Your task to perform on an android device: open app "Airtel Thanks" Image 0: 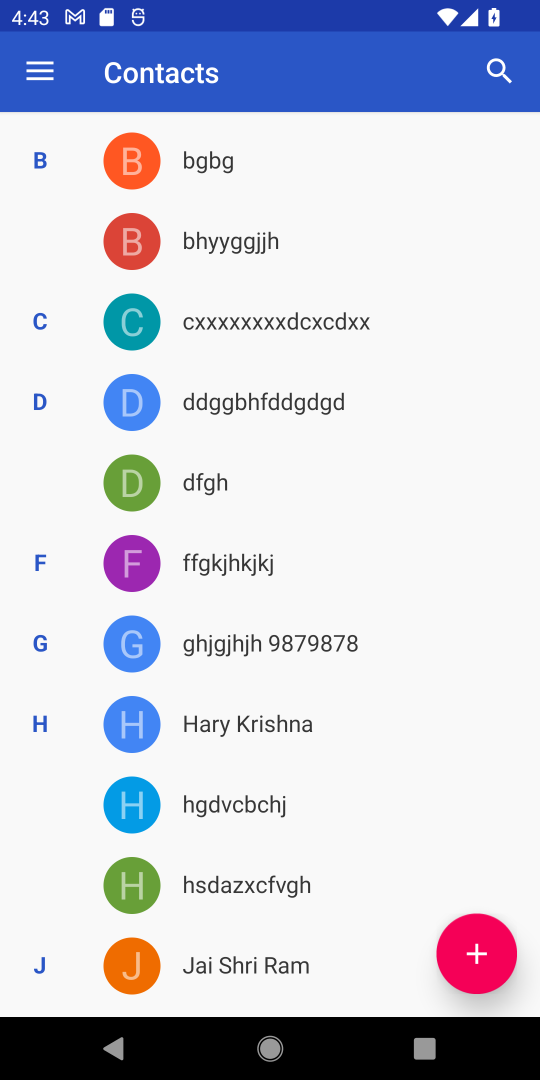
Step 0: press back button
Your task to perform on an android device: open app "Airtel Thanks" Image 1: 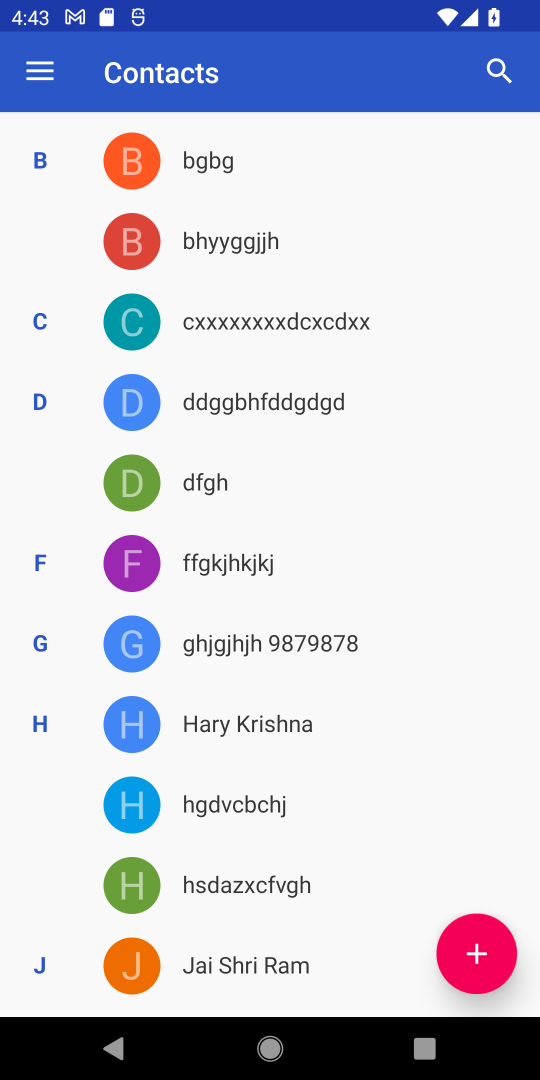
Step 1: press back button
Your task to perform on an android device: open app "Airtel Thanks" Image 2: 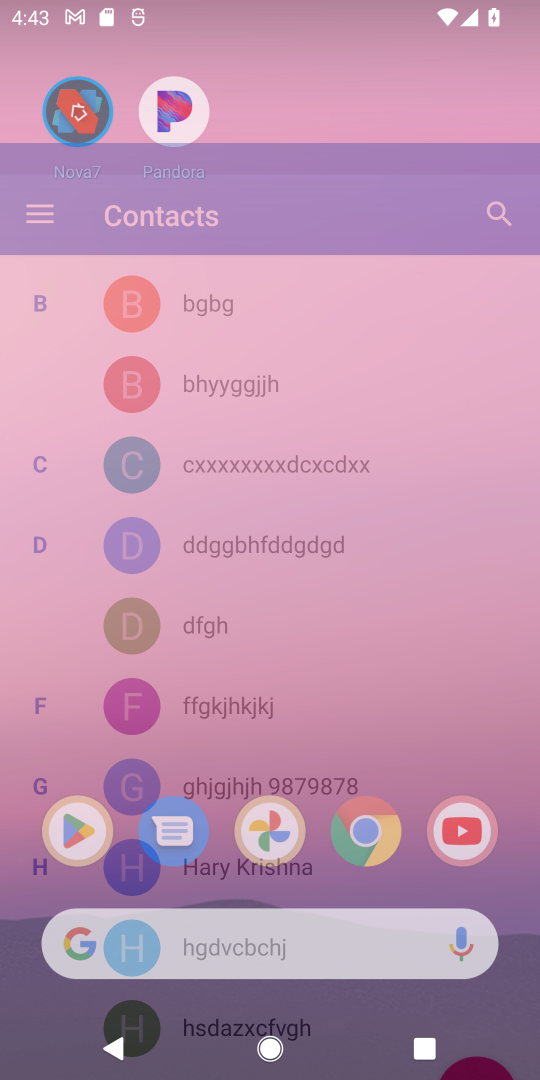
Step 2: press back button
Your task to perform on an android device: open app "Airtel Thanks" Image 3: 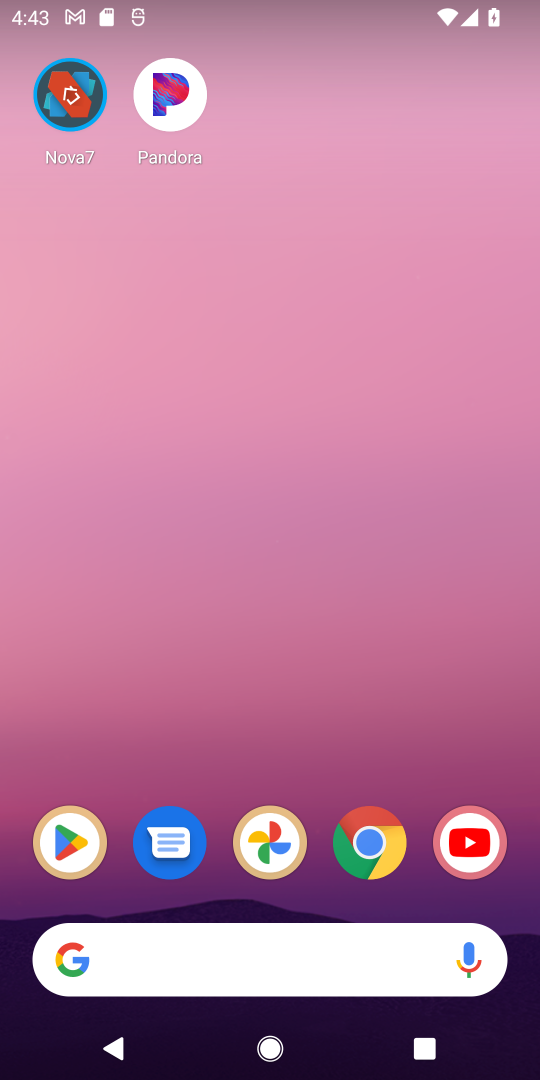
Step 3: drag from (308, 707) to (266, 251)
Your task to perform on an android device: open app "Airtel Thanks" Image 4: 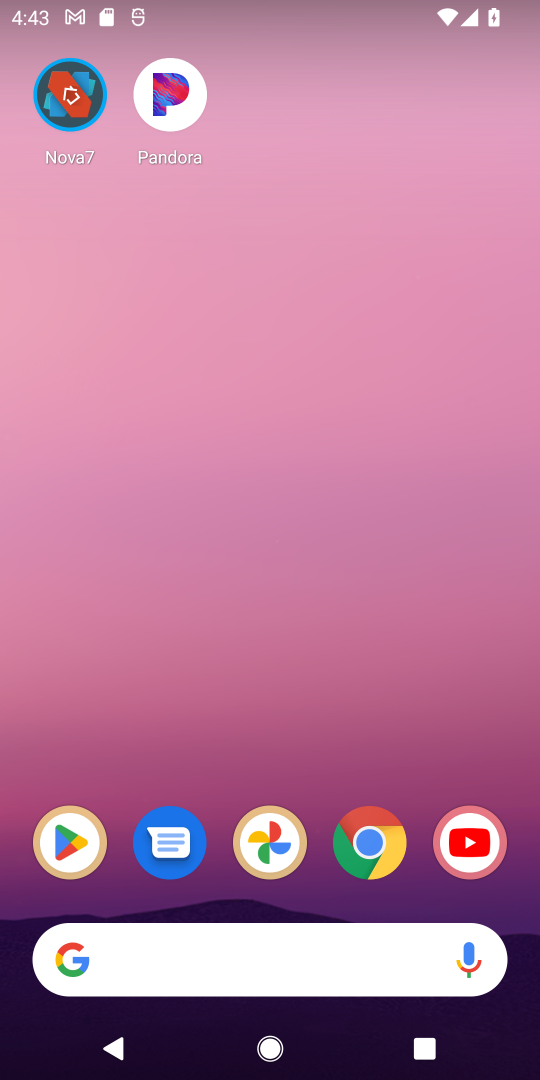
Step 4: drag from (353, 667) to (274, 366)
Your task to perform on an android device: open app "Airtel Thanks" Image 5: 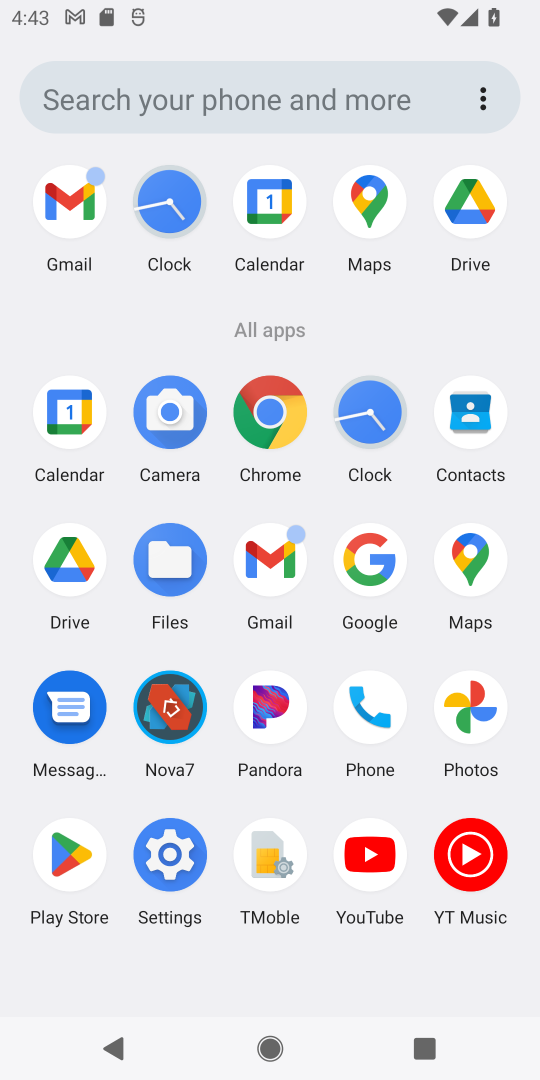
Step 5: click (72, 861)
Your task to perform on an android device: open app "Airtel Thanks" Image 6: 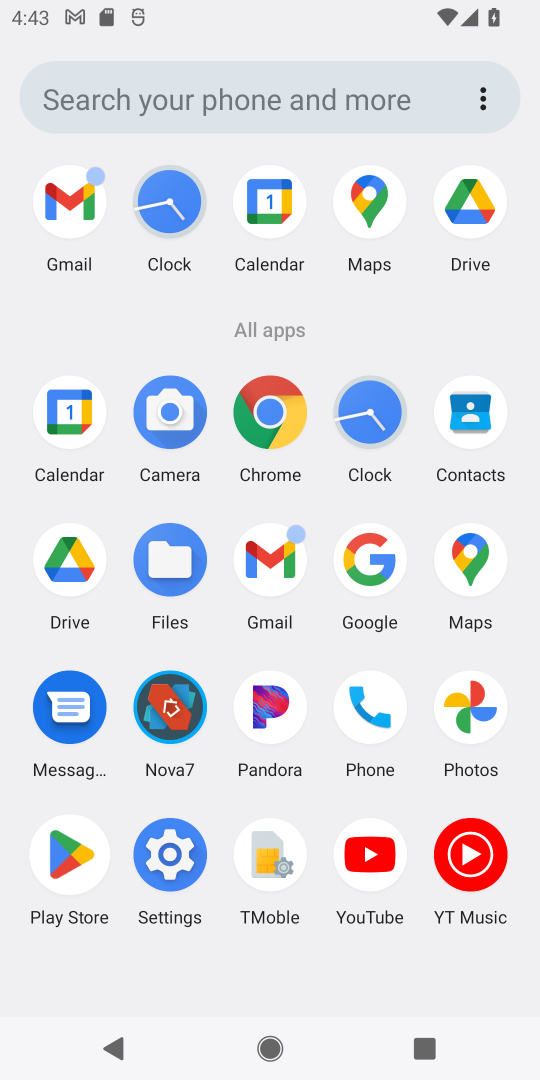
Step 6: click (72, 862)
Your task to perform on an android device: open app "Airtel Thanks" Image 7: 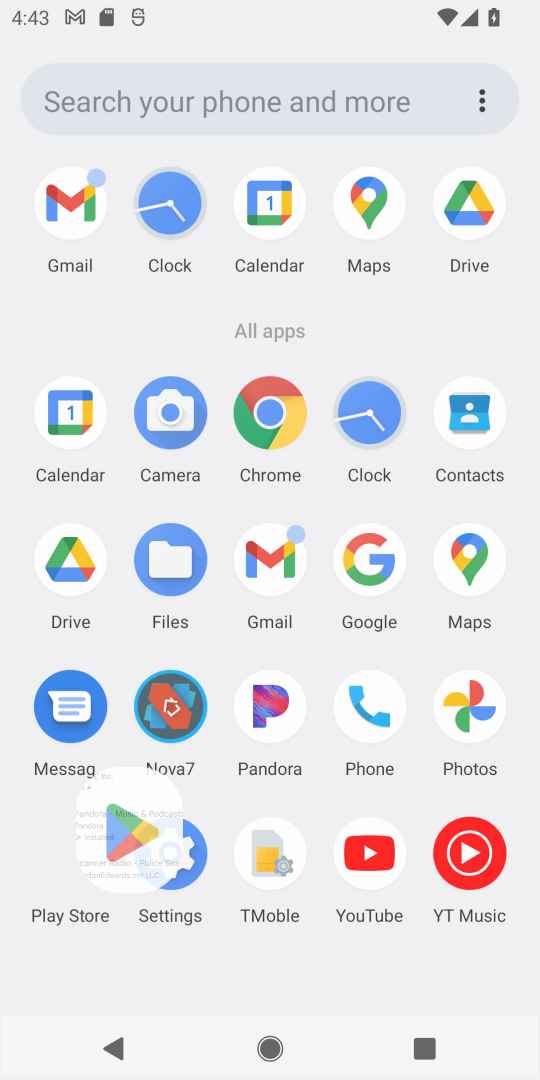
Step 7: click (74, 859)
Your task to perform on an android device: open app "Airtel Thanks" Image 8: 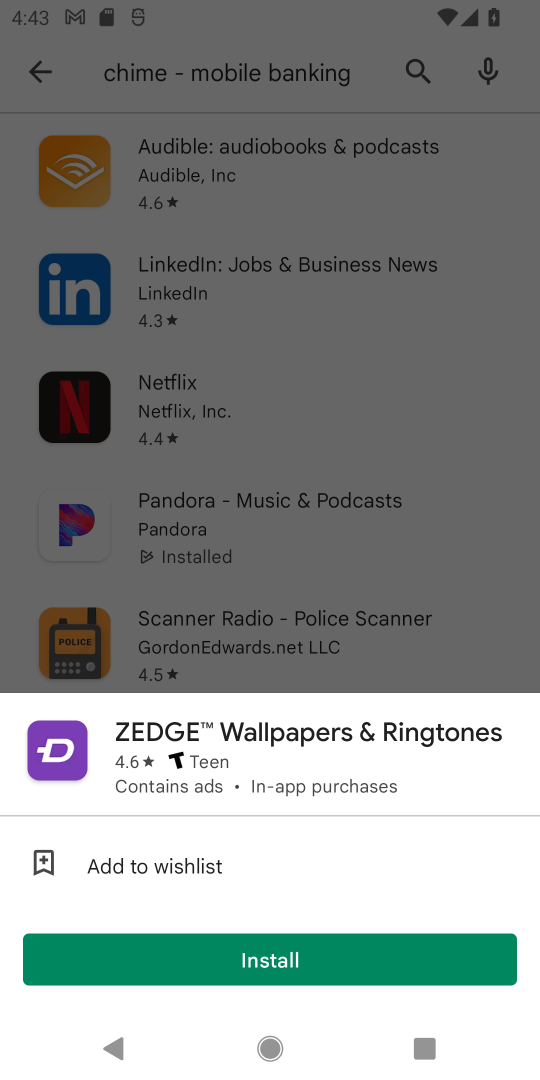
Step 8: click (435, 586)
Your task to perform on an android device: open app "Airtel Thanks" Image 9: 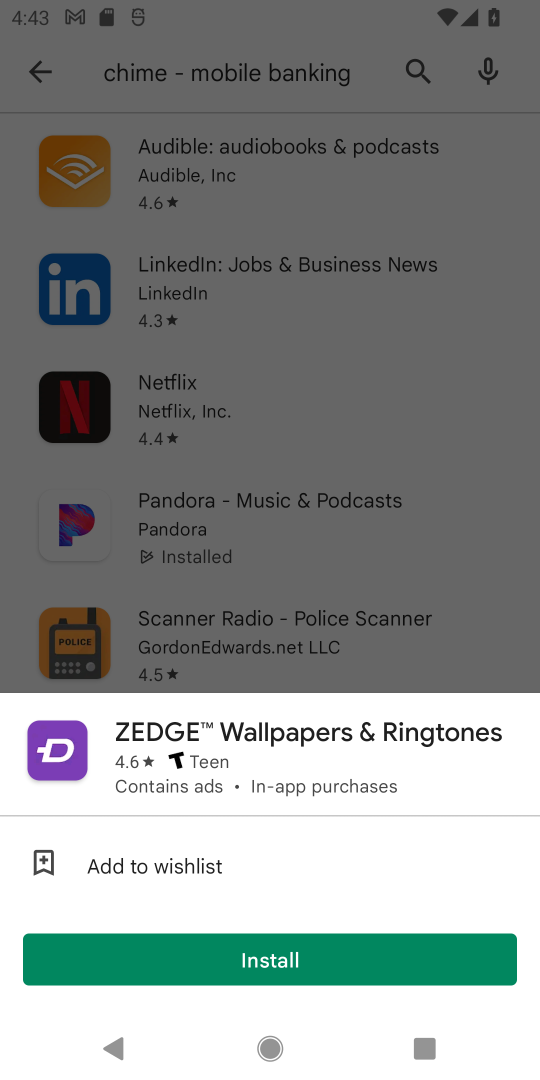
Step 9: click (442, 581)
Your task to perform on an android device: open app "Airtel Thanks" Image 10: 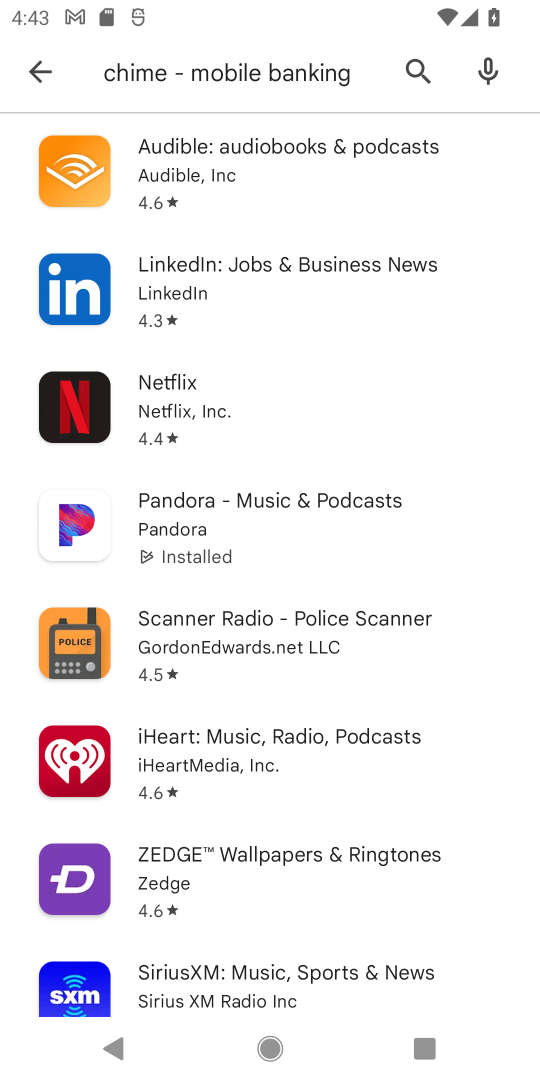
Step 10: click (445, 572)
Your task to perform on an android device: open app "Airtel Thanks" Image 11: 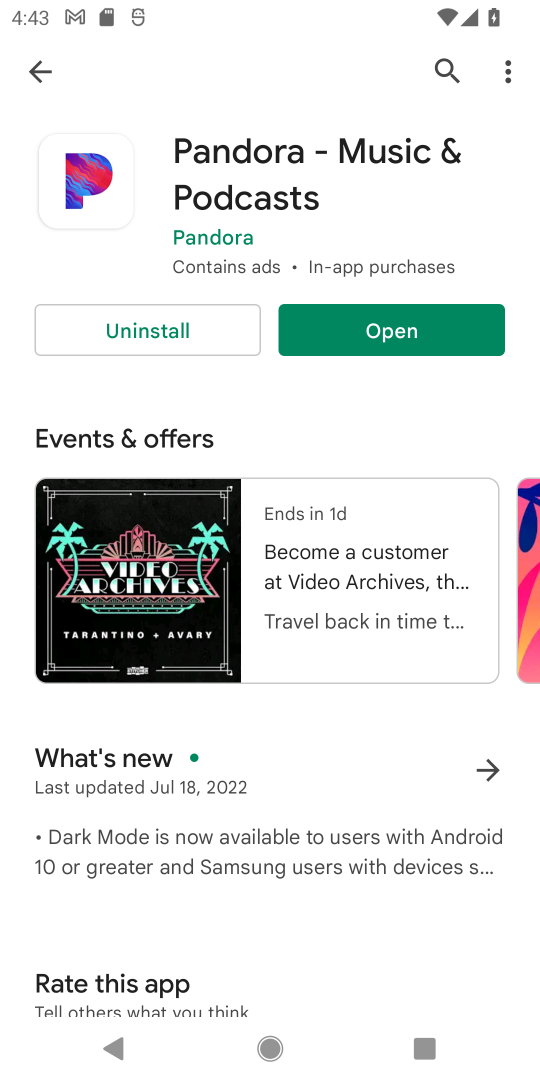
Step 11: click (28, 70)
Your task to perform on an android device: open app "Airtel Thanks" Image 12: 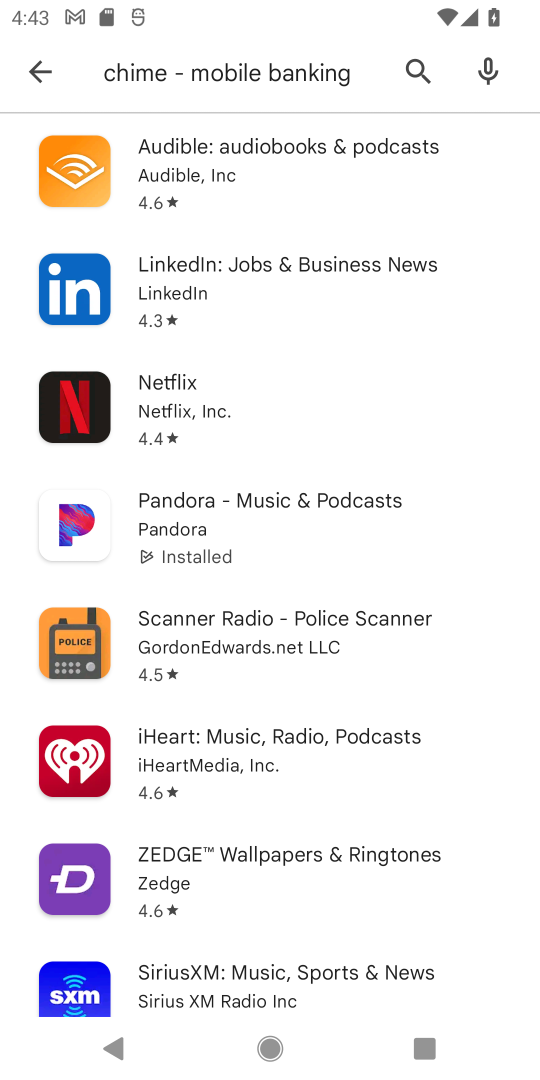
Step 12: click (48, 75)
Your task to perform on an android device: open app "Airtel Thanks" Image 13: 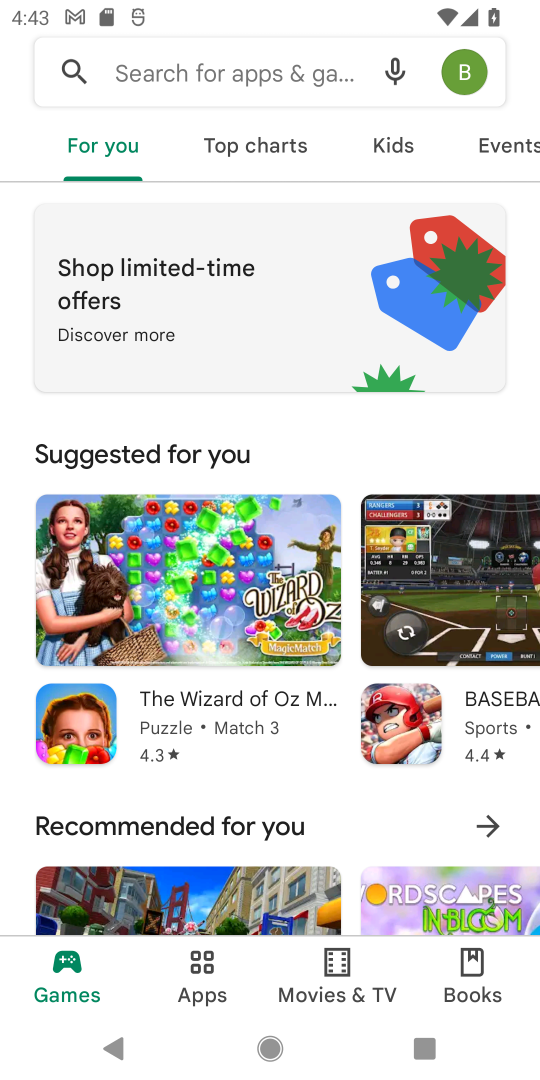
Step 13: click (147, 64)
Your task to perform on an android device: open app "Airtel Thanks" Image 14: 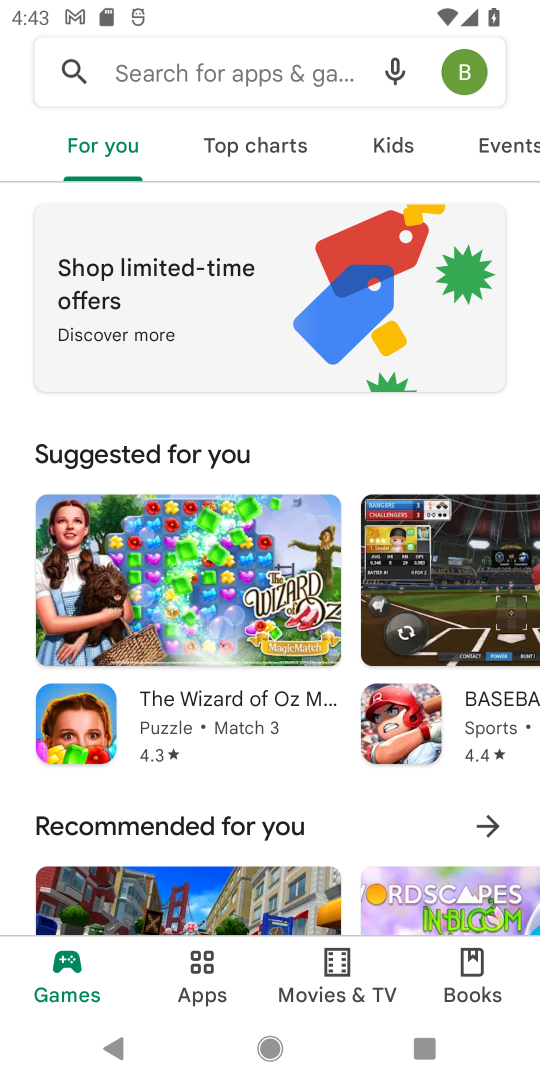
Step 14: click (146, 65)
Your task to perform on an android device: open app "Airtel Thanks" Image 15: 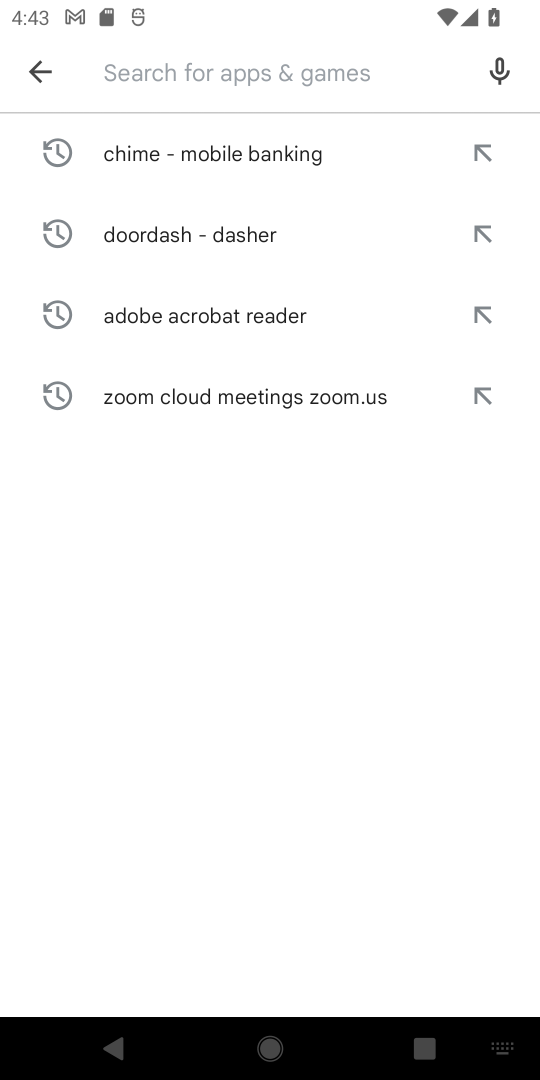
Step 15: type "Airtel Thanks"
Your task to perform on an android device: open app "Airtel Thanks" Image 16: 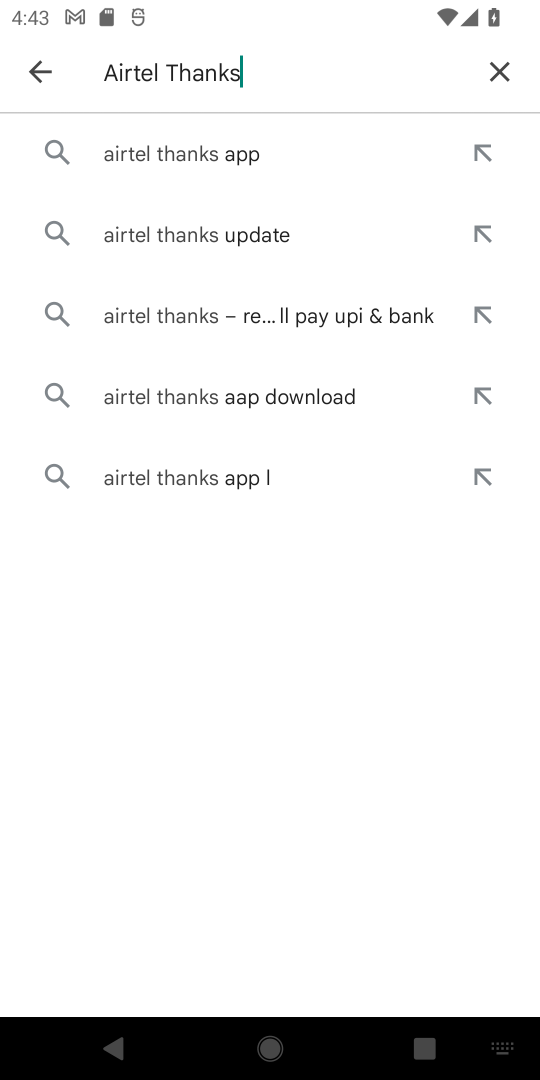
Step 16: click (144, 146)
Your task to perform on an android device: open app "Airtel Thanks" Image 17: 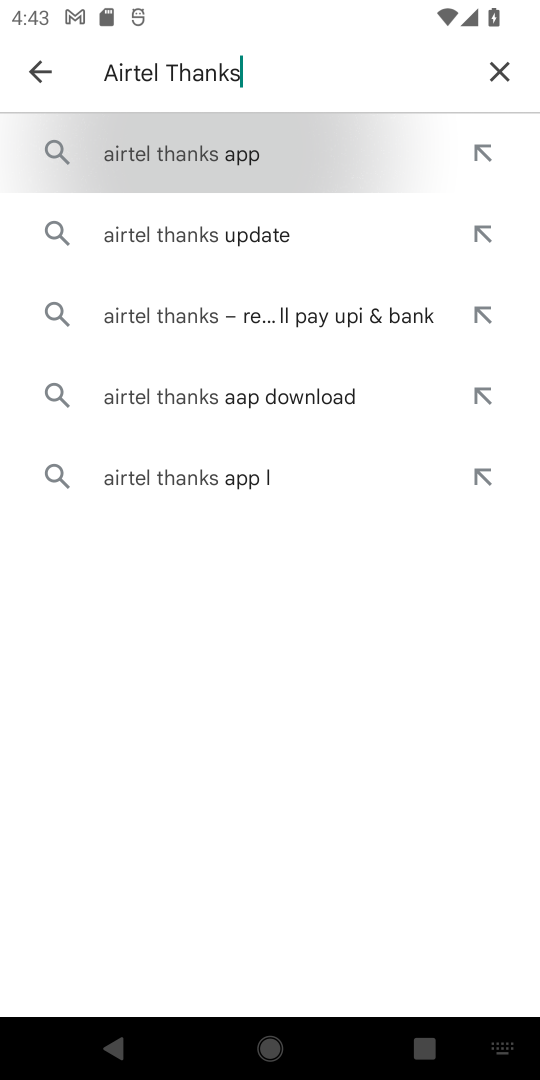
Step 17: click (148, 148)
Your task to perform on an android device: open app "Airtel Thanks" Image 18: 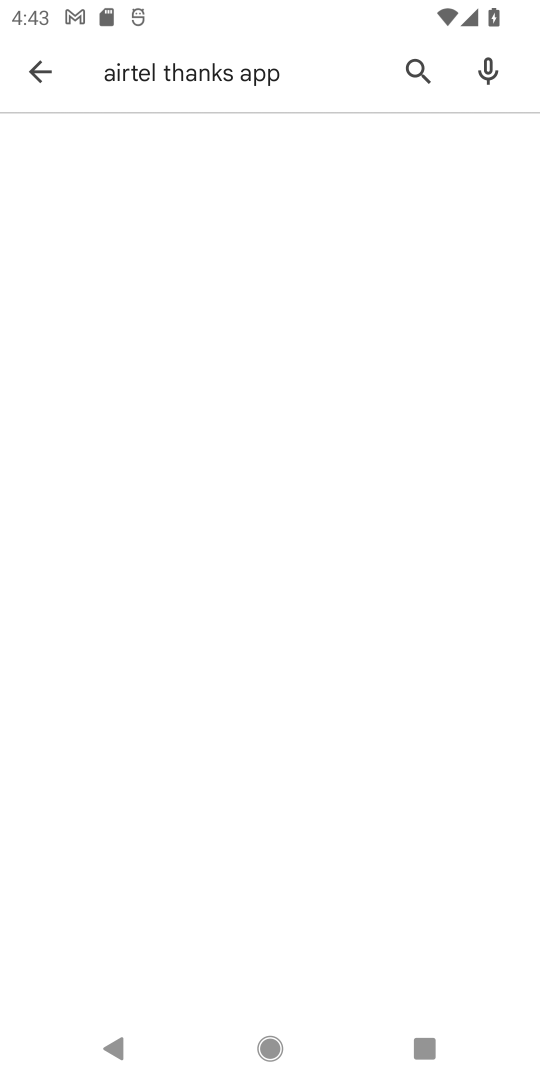
Step 18: click (159, 154)
Your task to perform on an android device: open app "Airtel Thanks" Image 19: 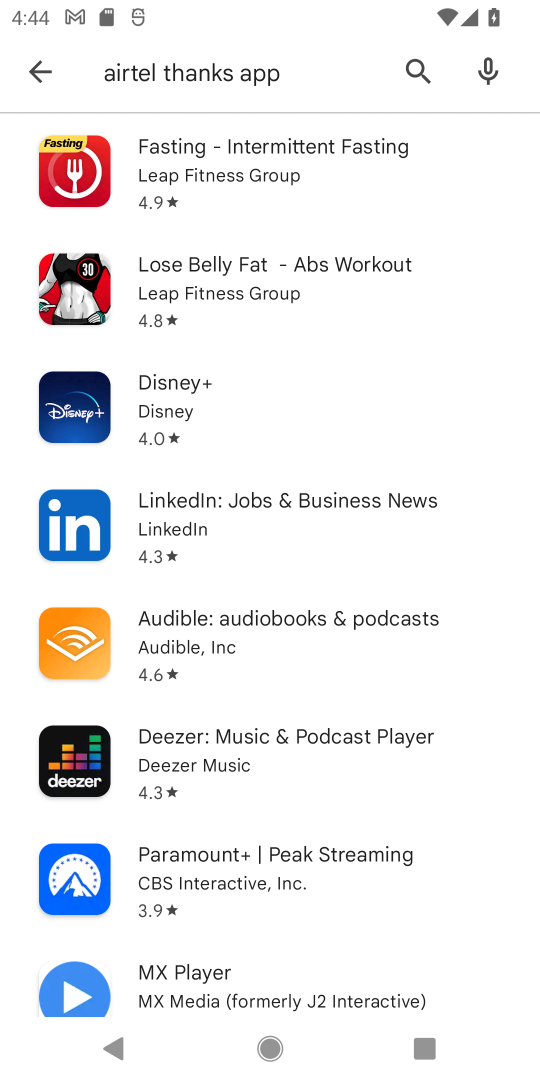
Step 19: drag from (150, 495) to (105, 215)
Your task to perform on an android device: open app "Airtel Thanks" Image 20: 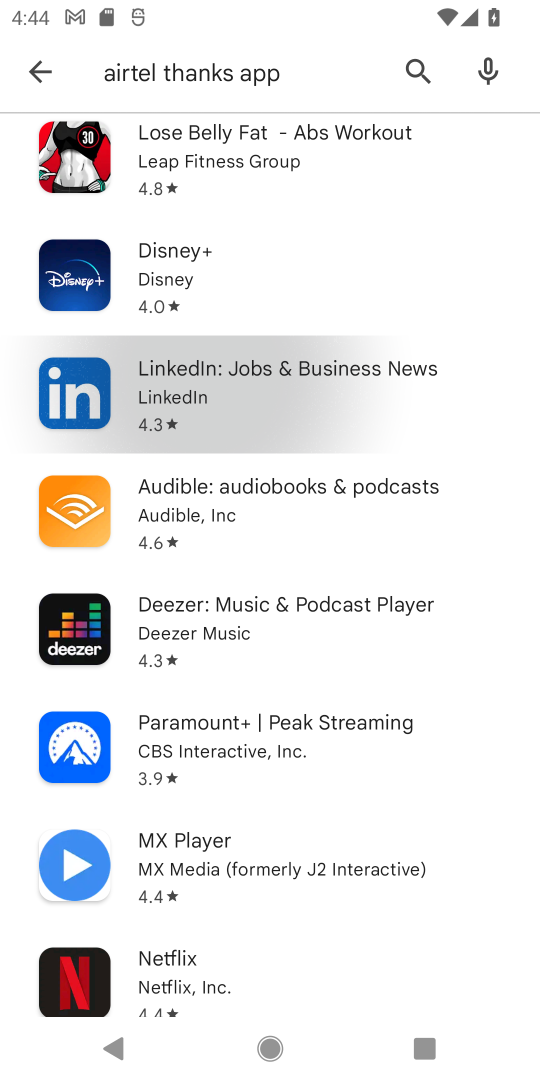
Step 20: drag from (194, 708) to (181, 232)
Your task to perform on an android device: open app "Airtel Thanks" Image 21: 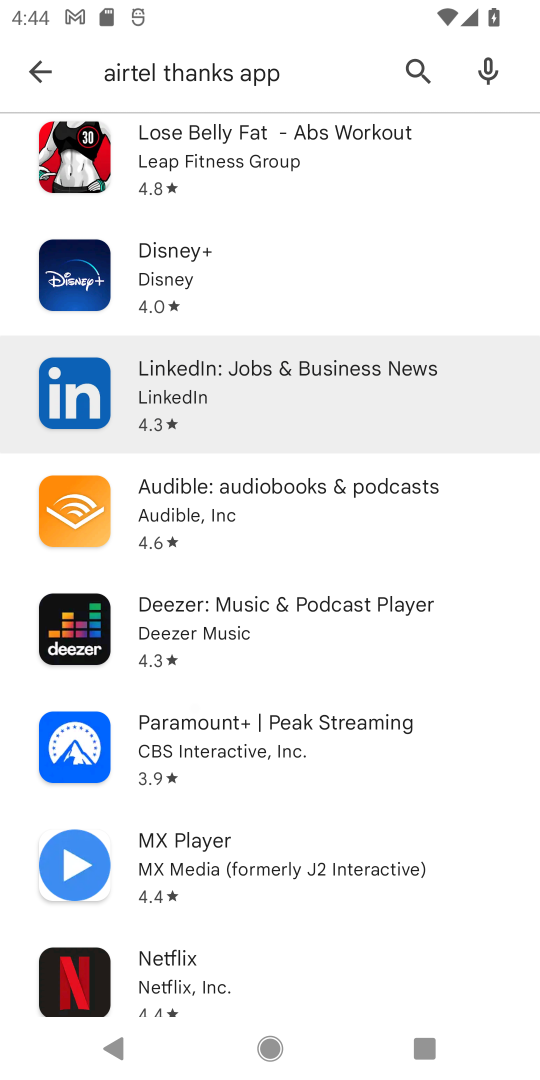
Step 21: drag from (182, 611) to (123, 235)
Your task to perform on an android device: open app "Airtel Thanks" Image 22: 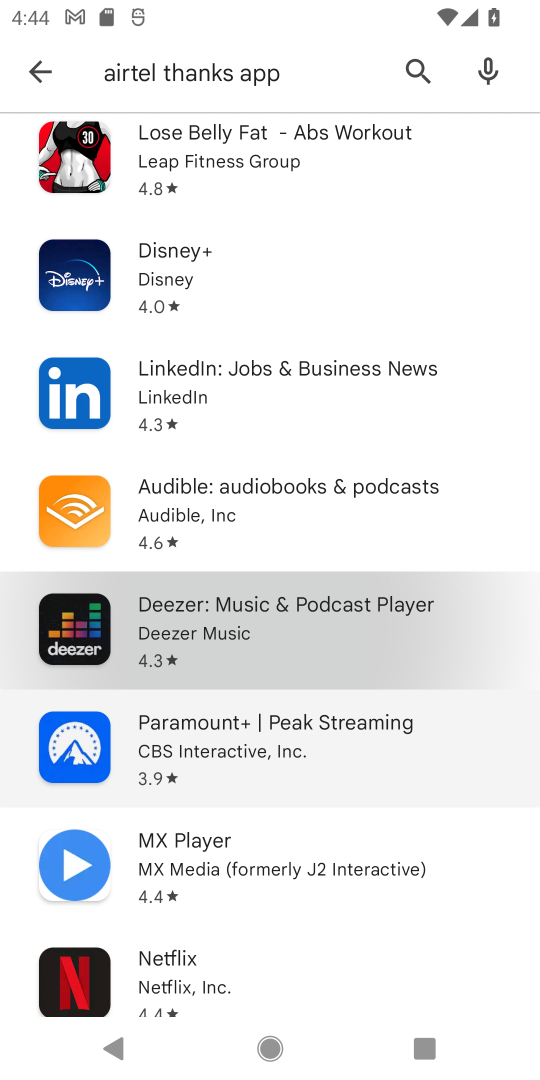
Step 22: click (295, 407)
Your task to perform on an android device: open app "Airtel Thanks" Image 23: 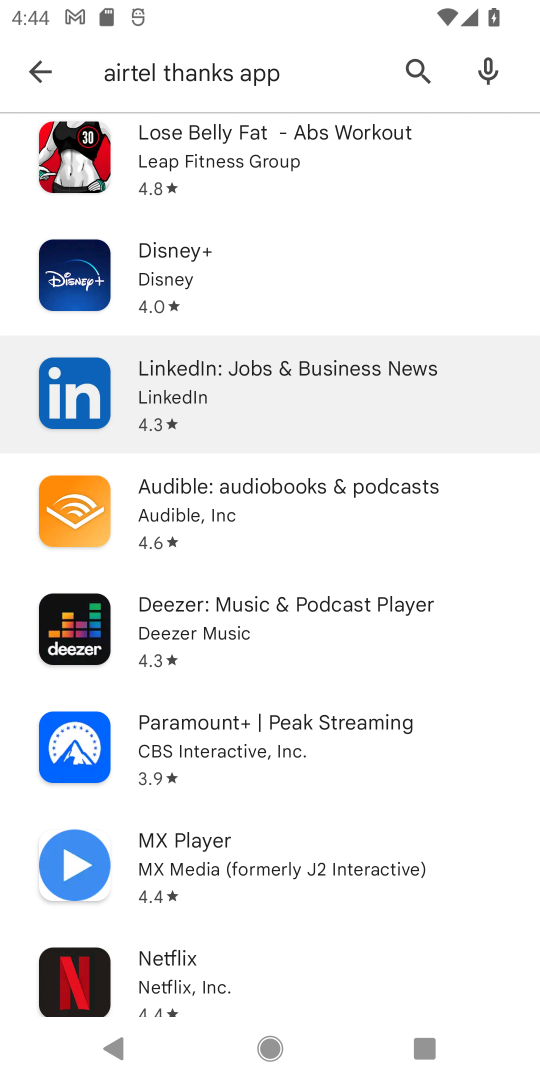
Step 23: drag from (139, 856) to (185, 994)
Your task to perform on an android device: open app "Airtel Thanks" Image 24: 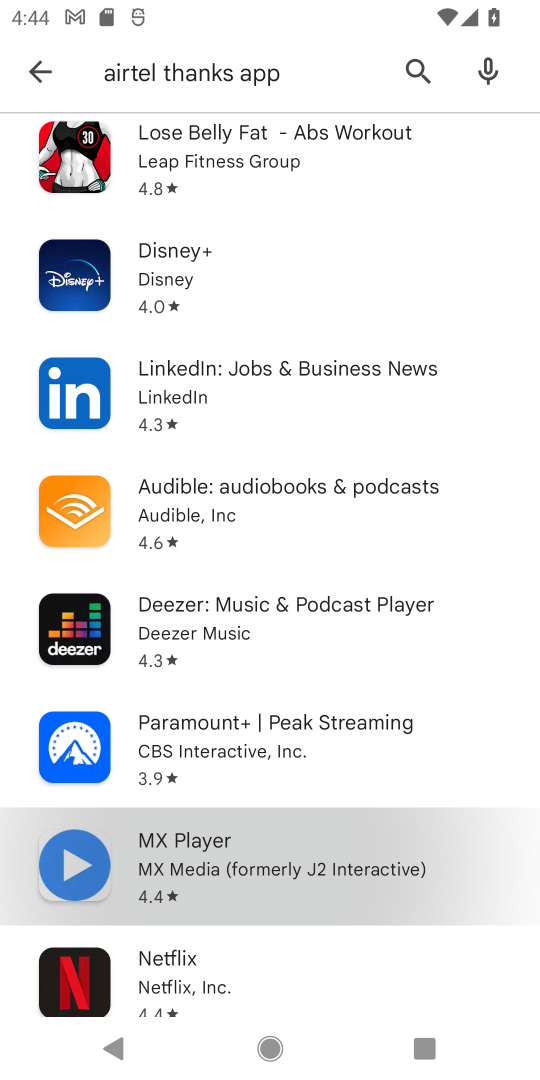
Step 24: click (227, 935)
Your task to perform on an android device: open app "Airtel Thanks" Image 25: 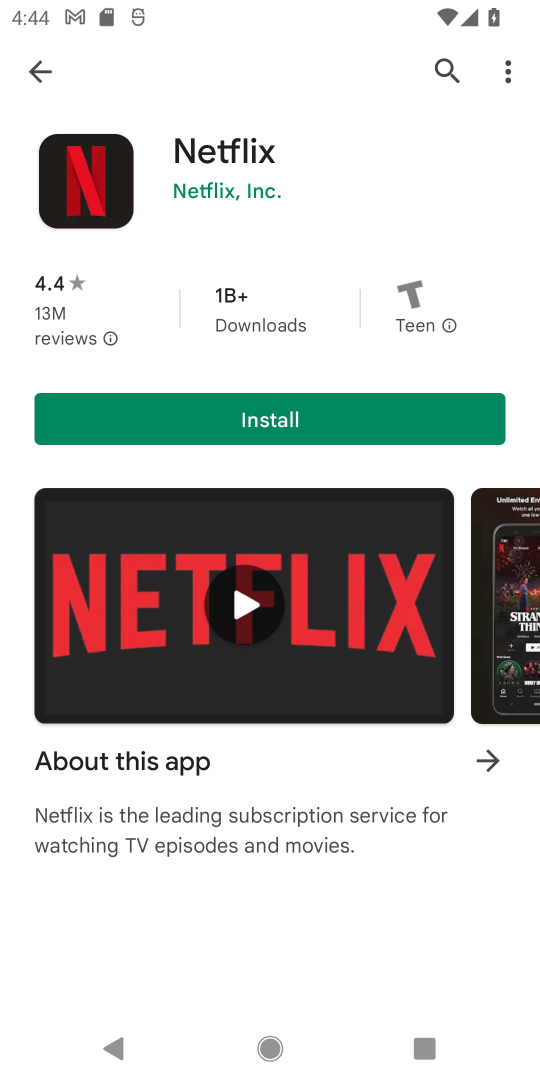
Step 25: drag from (391, 761) to (281, 933)
Your task to perform on an android device: open app "Airtel Thanks" Image 26: 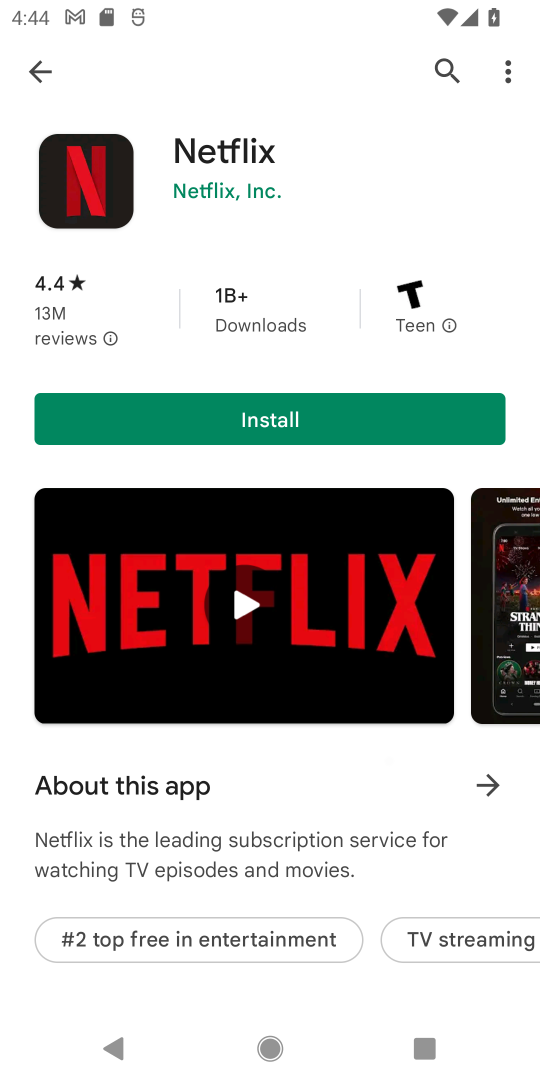
Step 26: drag from (164, 790) to (212, 932)
Your task to perform on an android device: open app "Airtel Thanks" Image 27: 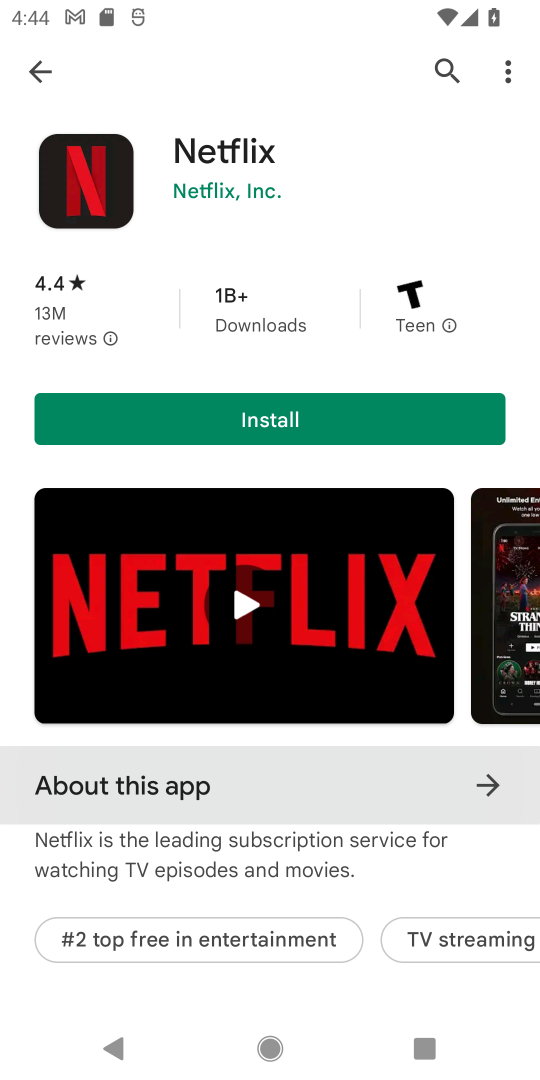
Step 27: click (17, 68)
Your task to perform on an android device: open app "Airtel Thanks" Image 28: 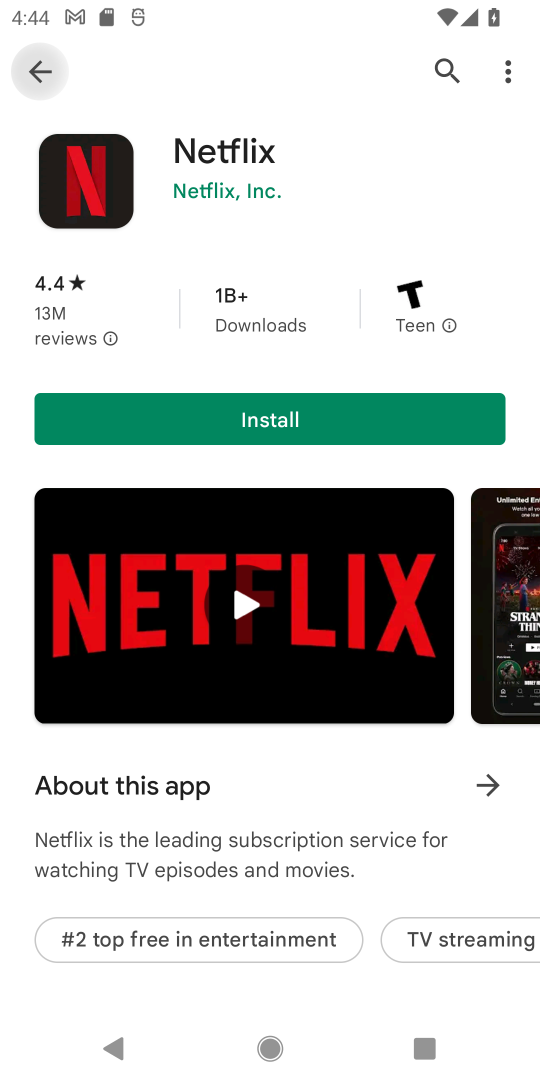
Step 28: click (37, 89)
Your task to perform on an android device: open app "Airtel Thanks" Image 29: 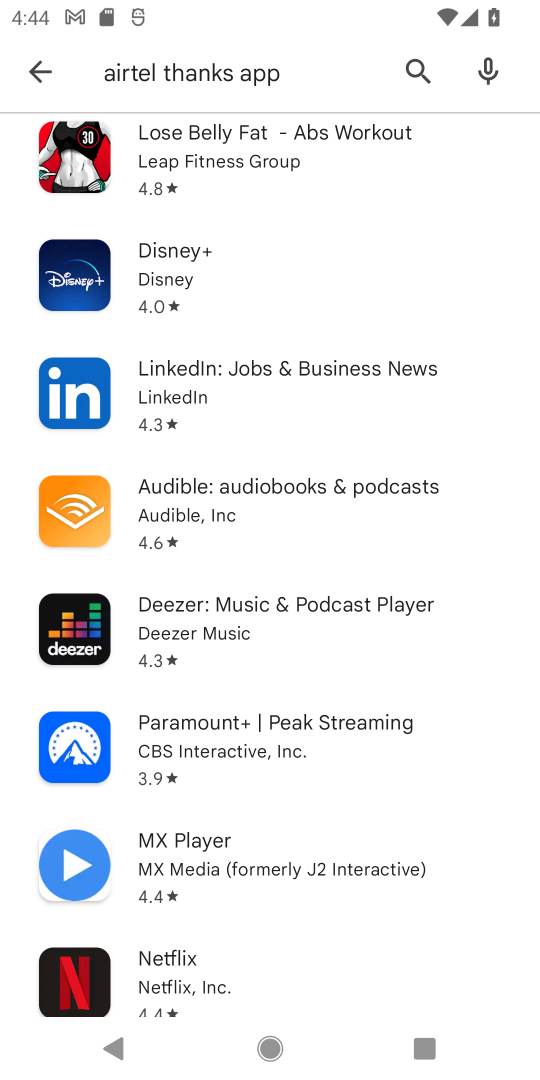
Step 29: drag from (188, 369) to (230, 736)
Your task to perform on an android device: open app "Airtel Thanks" Image 30: 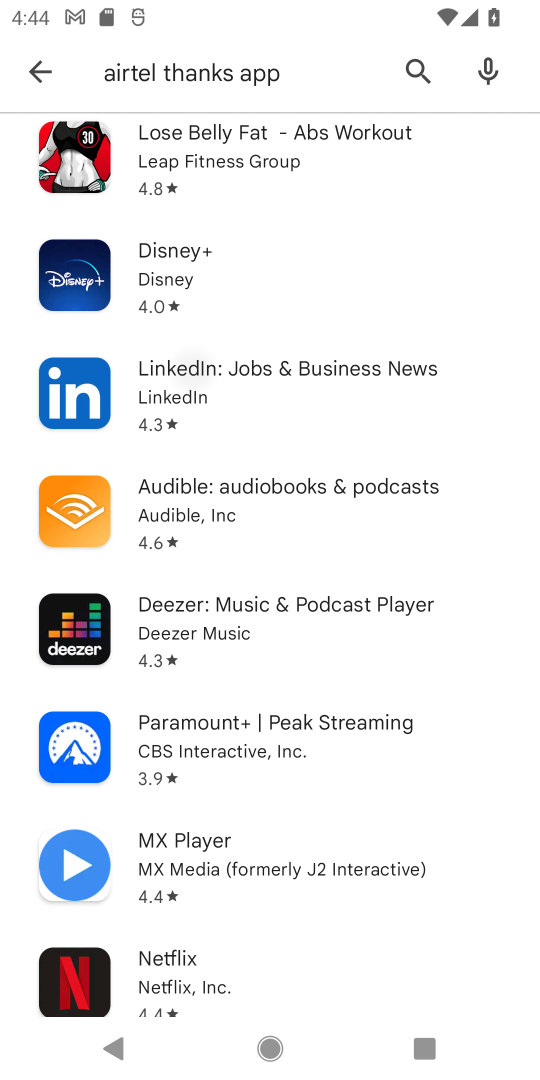
Step 30: click (161, 962)
Your task to perform on an android device: open app "Airtel Thanks" Image 31: 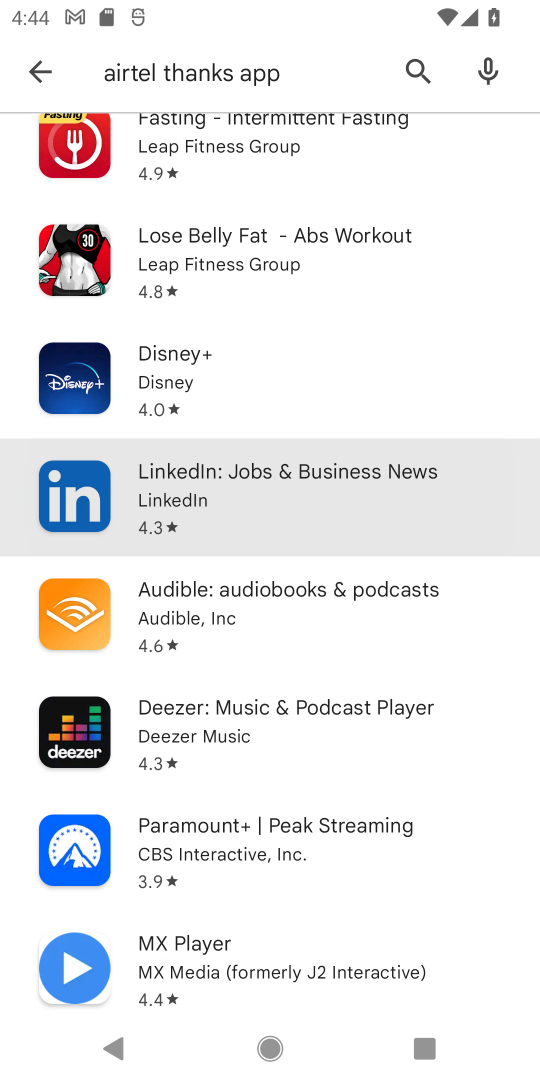
Step 31: drag from (277, 972) to (239, 910)
Your task to perform on an android device: open app "Airtel Thanks" Image 32: 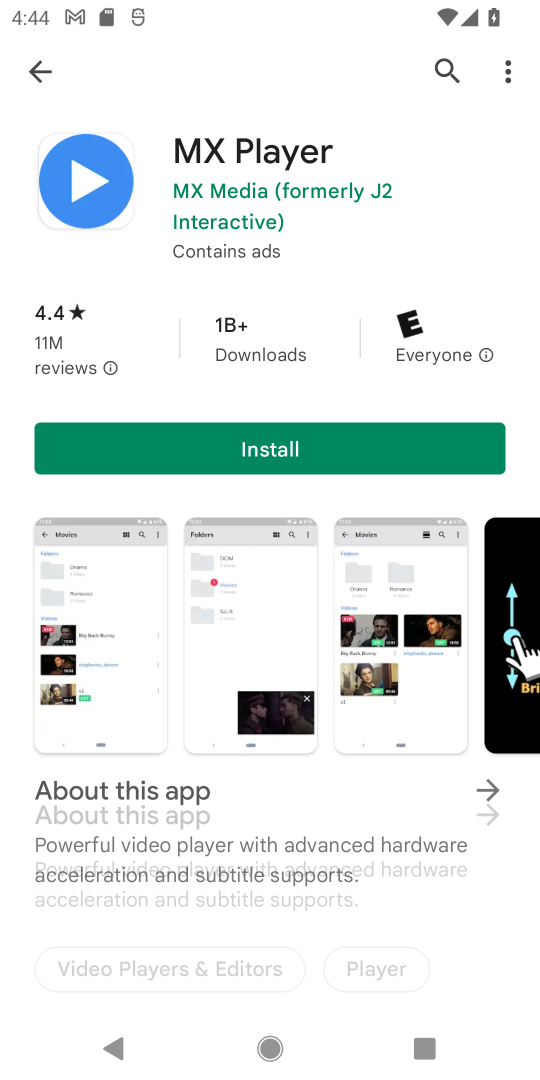
Step 32: drag from (226, 528) to (296, 978)
Your task to perform on an android device: open app "Airtel Thanks" Image 33: 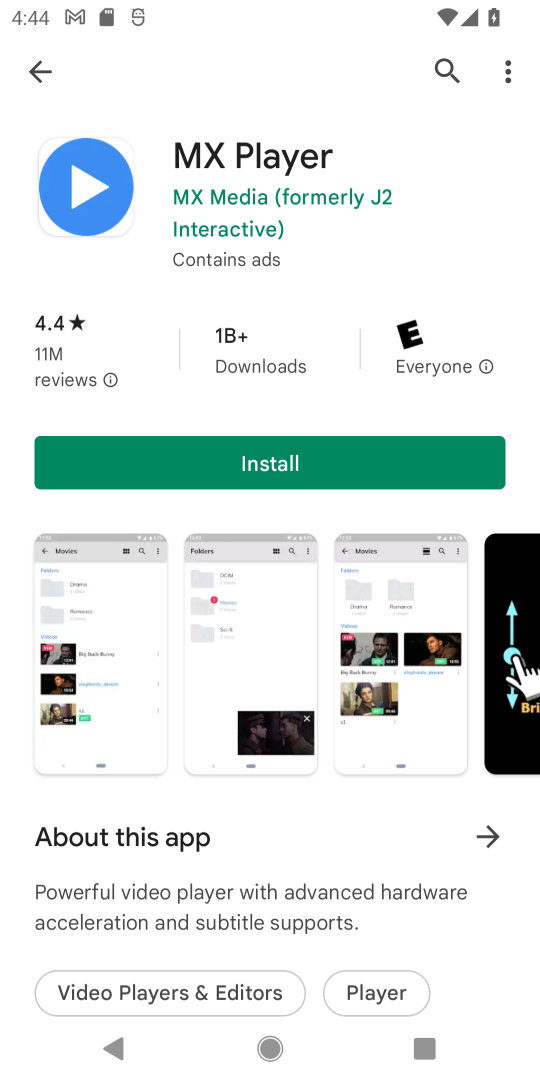
Step 33: drag from (108, 453) to (154, 871)
Your task to perform on an android device: open app "Airtel Thanks" Image 34: 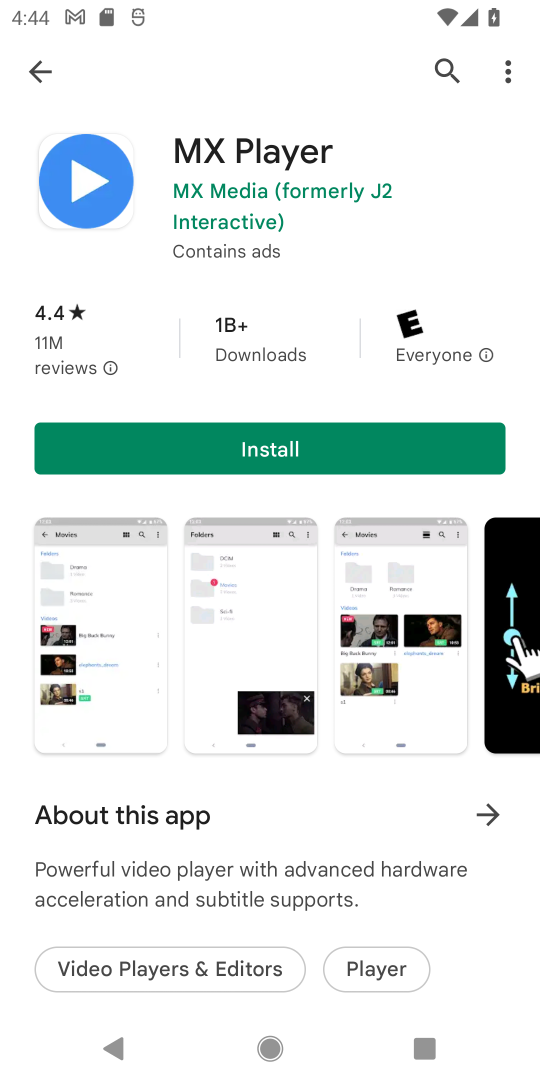
Step 34: click (23, 63)
Your task to perform on an android device: open app "Airtel Thanks" Image 35: 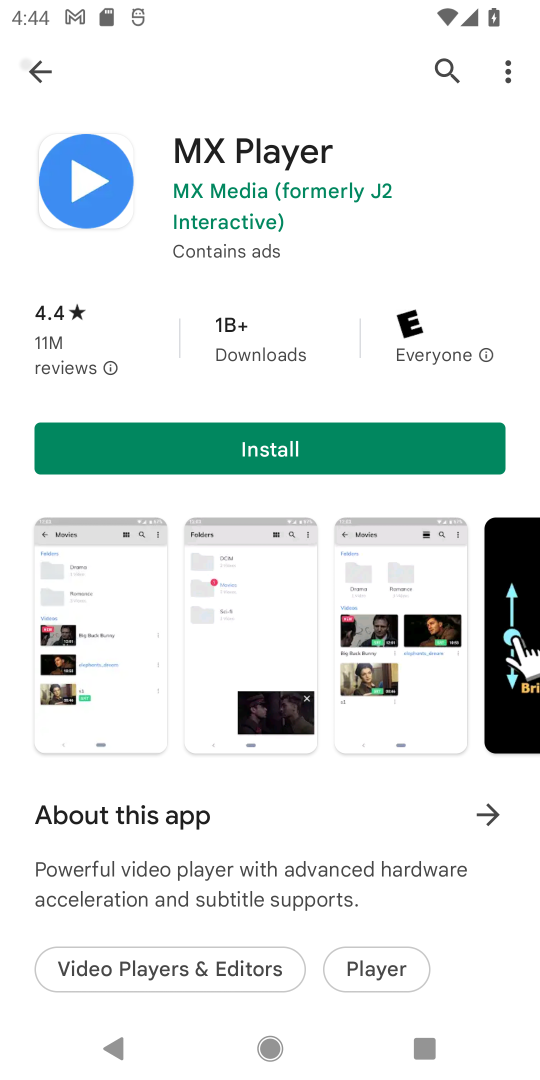
Step 35: click (22, 59)
Your task to perform on an android device: open app "Airtel Thanks" Image 36: 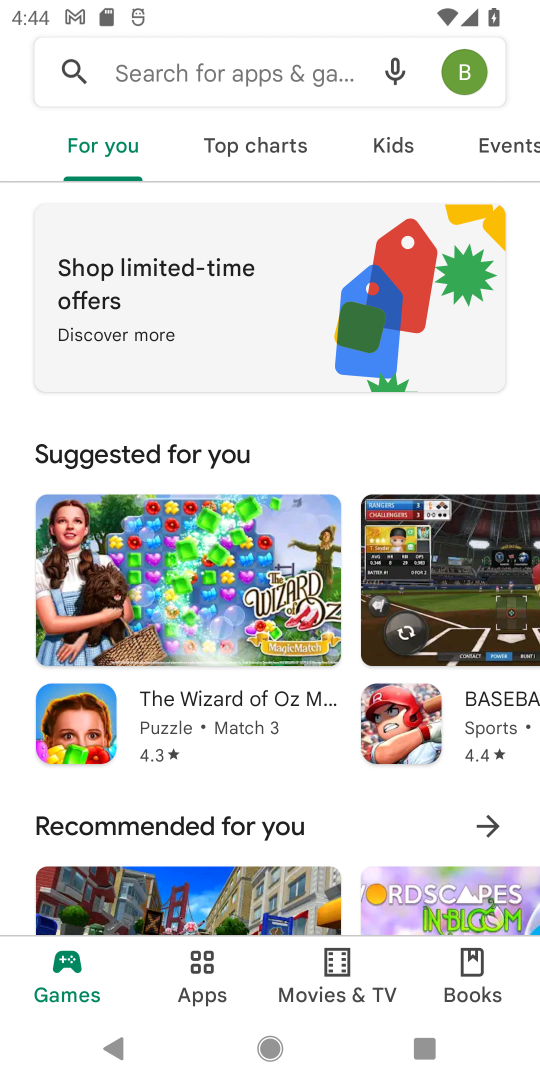
Step 36: click (156, 69)
Your task to perform on an android device: open app "Airtel Thanks" Image 37: 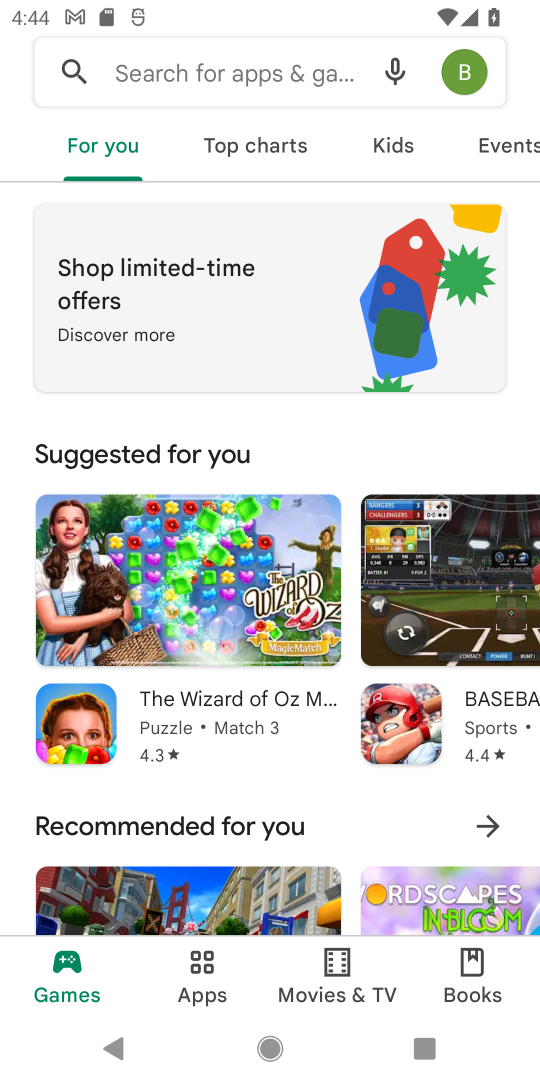
Step 37: click (139, 87)
Your task to perform on an android device: open app "Airtel Thanks" Image 38: 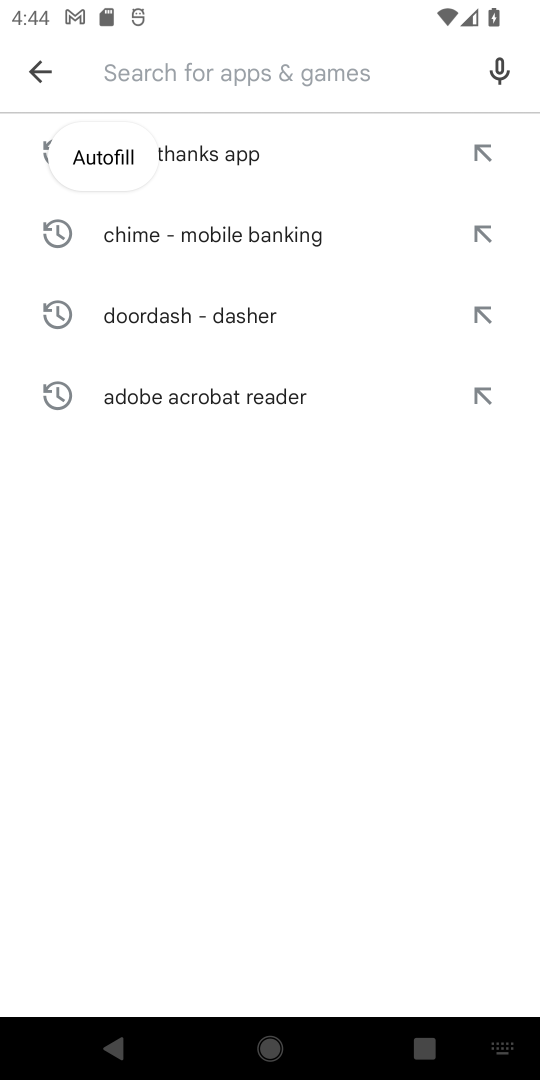
Step 38: type "Airtel Thanks"
Your task to perform on an android device: open app "Airtel Thanks" Image 39: 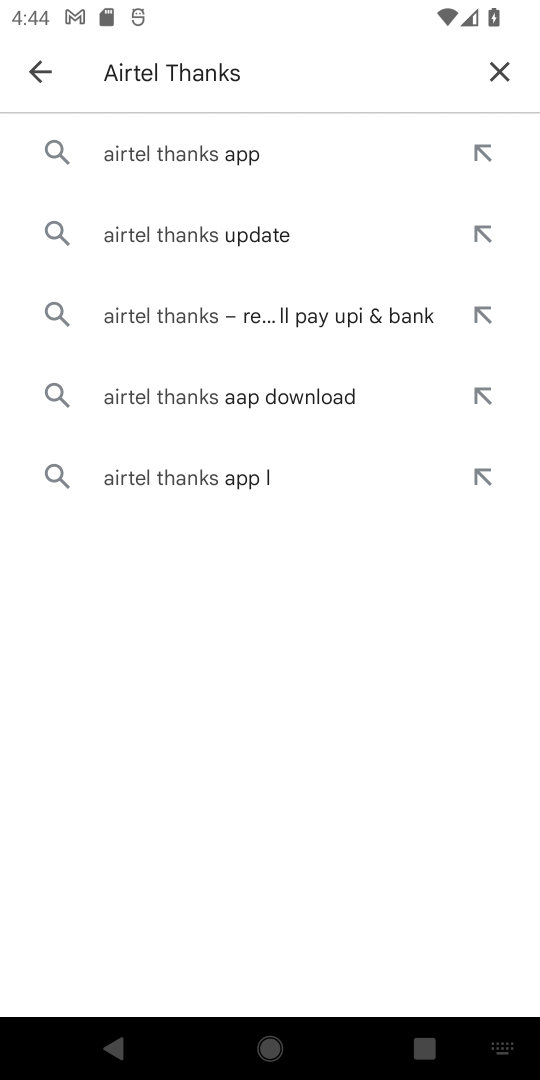
Step 39: click (160, 147)
Your task to perform on an android device: open app "Airtel Thanks" Image 40: 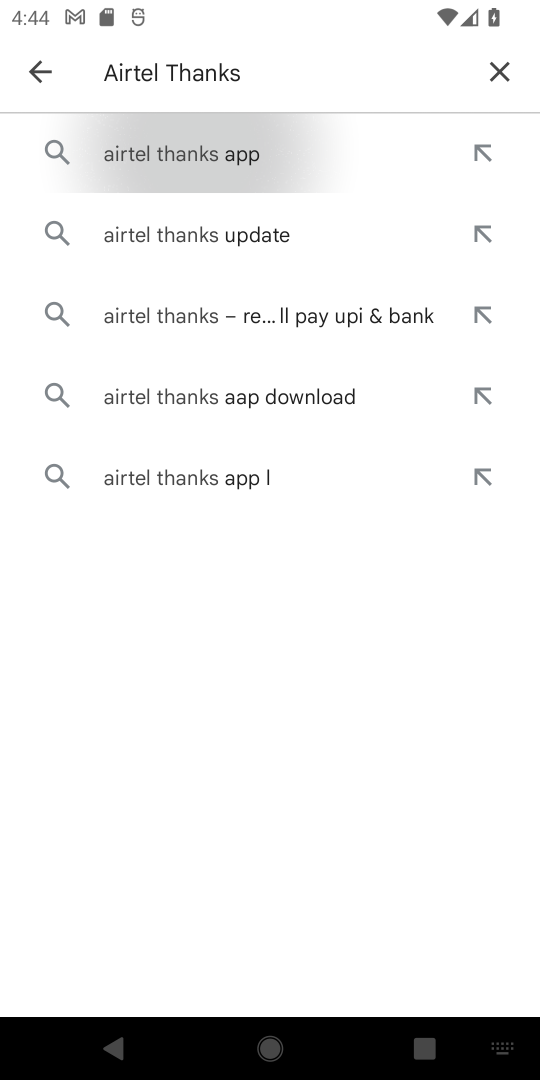
Step 40: click (161, 143)
Your task to perform on an android device: open app "Airtel Thanks" Image 41: 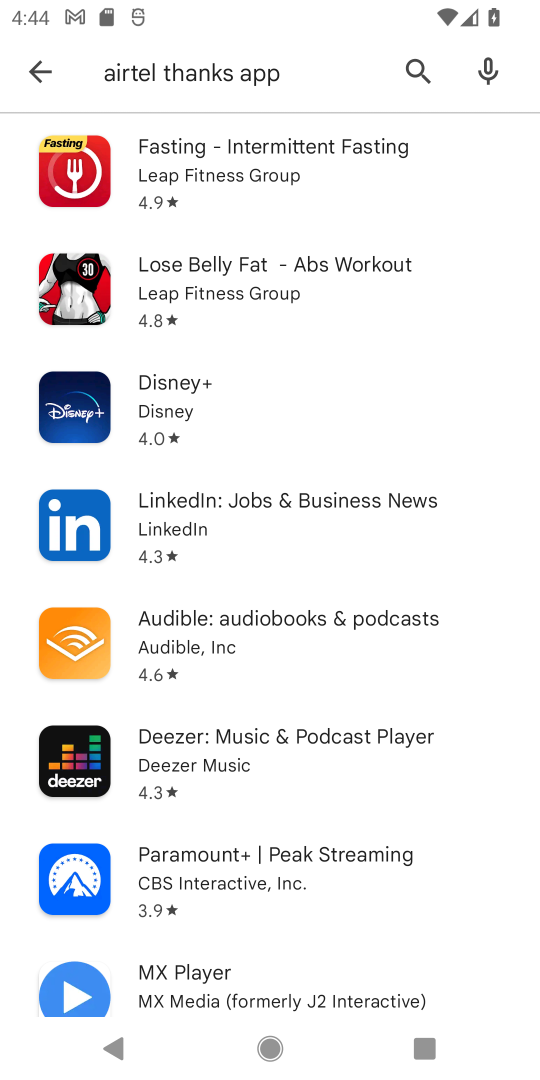
Step 41: task complete